Your task to perform on an android device: Open battery settings Image 0: 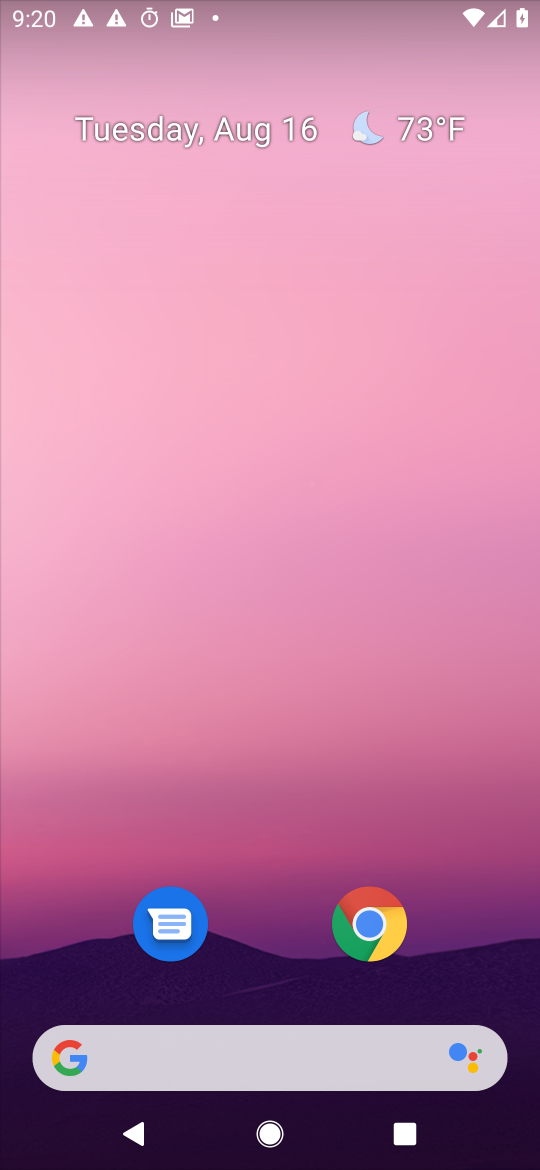
Step 0: drag from (253, 867) to (337, 7)
Your task to perform on an android device: Open battery settings Image 1: 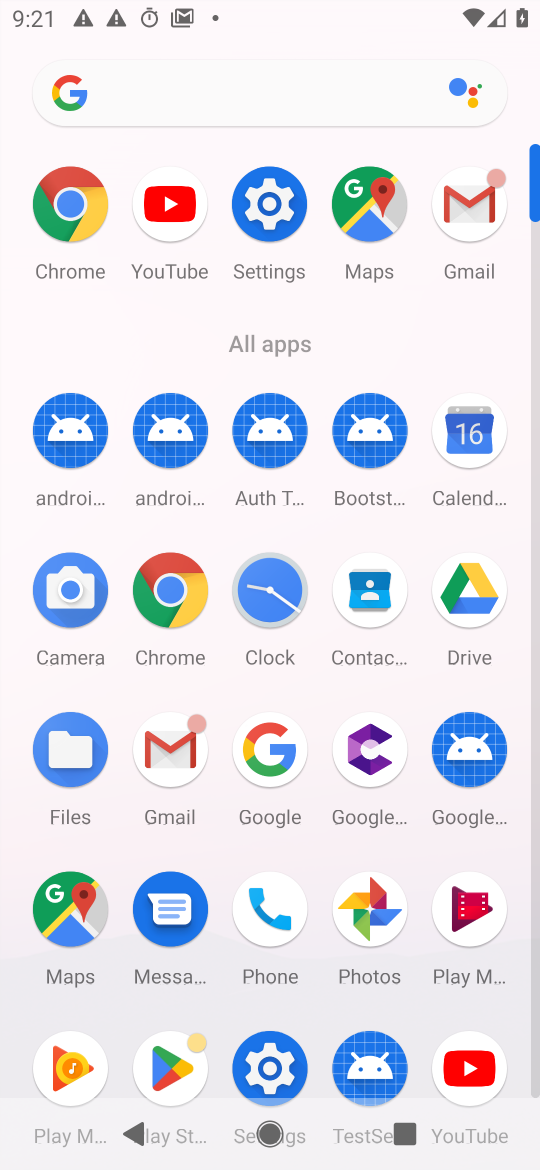
Step 1: click (270, 220)
Your task to perform on an android device: Open battery settings Image 2: 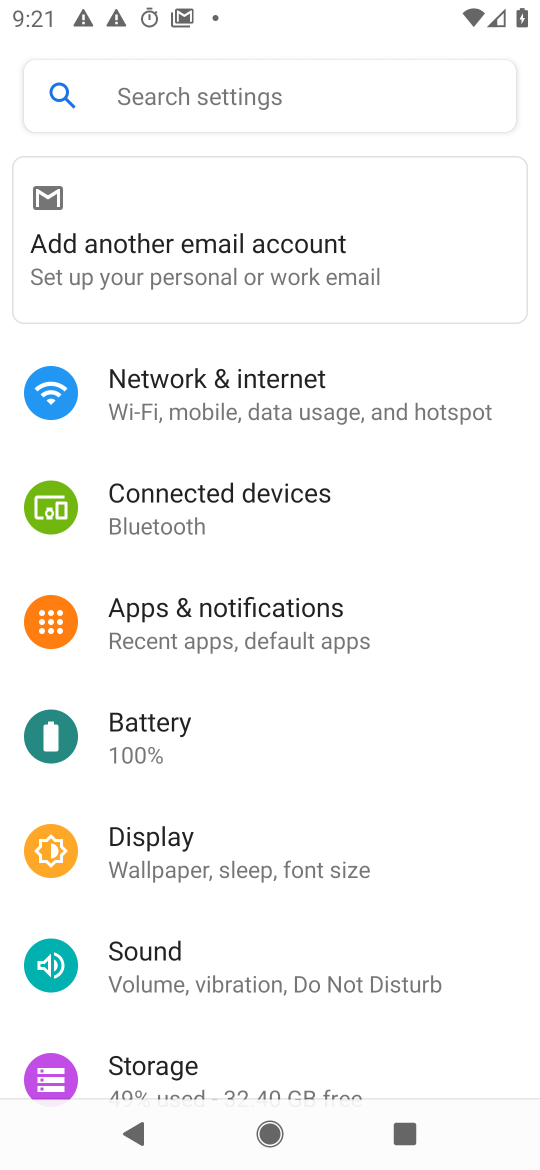
Step 2: click (180, 731)
Your task to perform on an android device: Open battery settings Image 3: 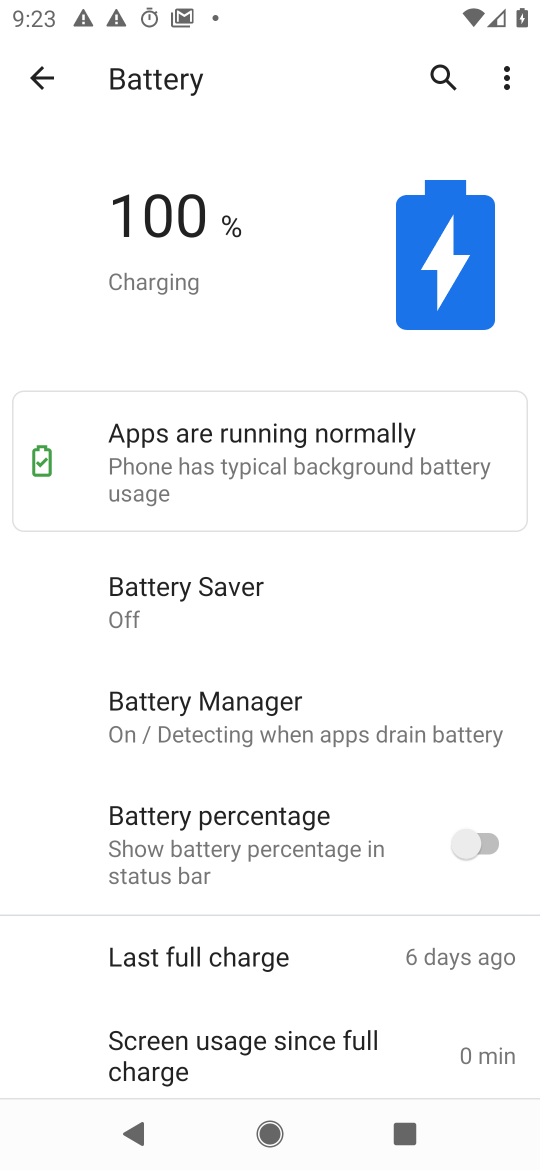
Step 3: task complete